Your task to perform on an android device: Open the map Image 0: 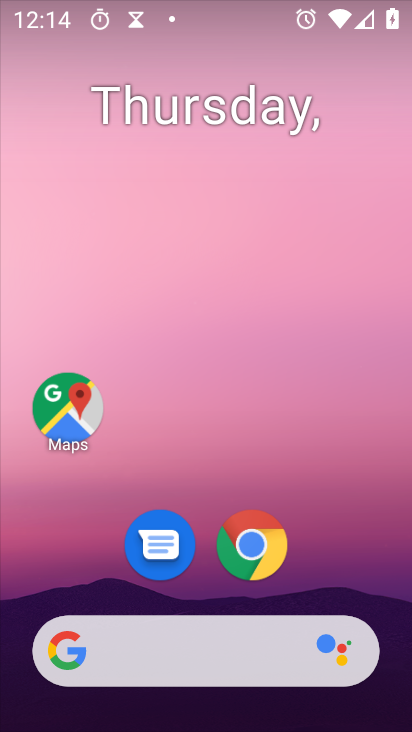
Step 0: press home button
Your task to perform on an android device: Open the map Image 1: 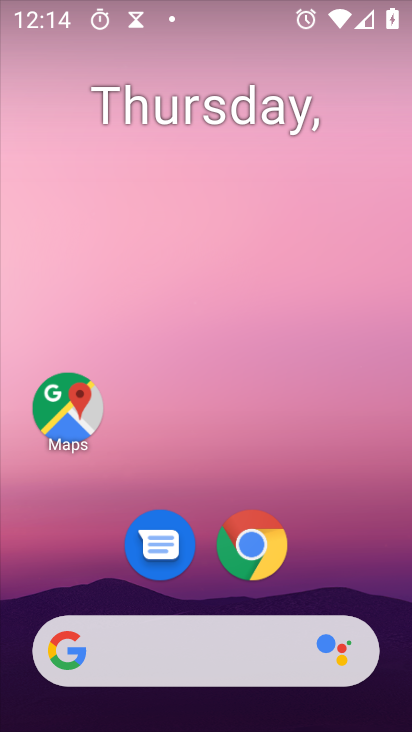
Step 1: click (59, 416)
Your task to perform on an android device: Open the map Image 2: 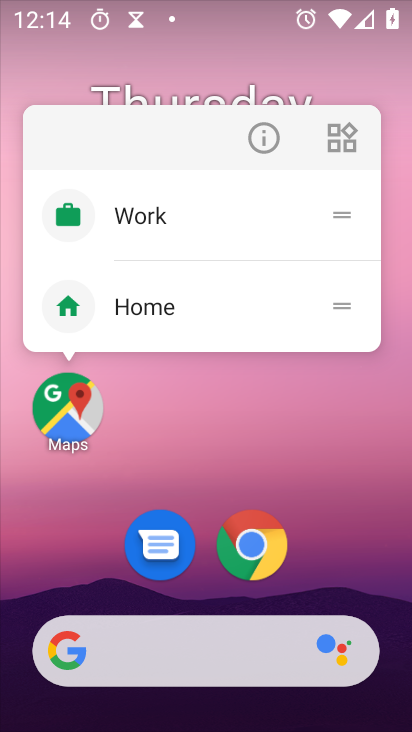
Step 2: click (74, 418)
Your task to perform on an android device: Open the map Image 3: 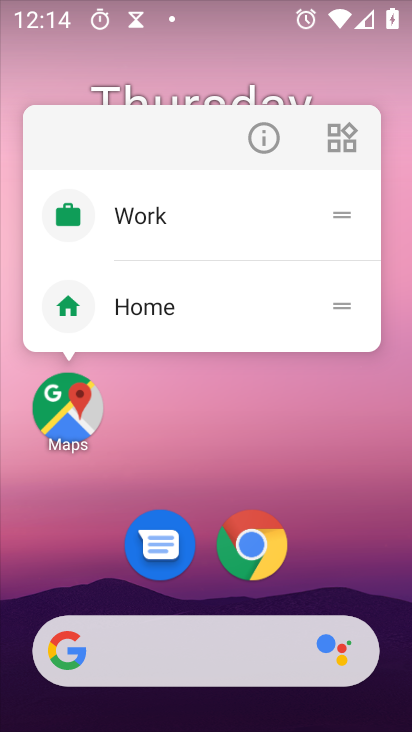
Step 3: click (71, 433)
Your task to perform on an android device: Open the map Image 4: 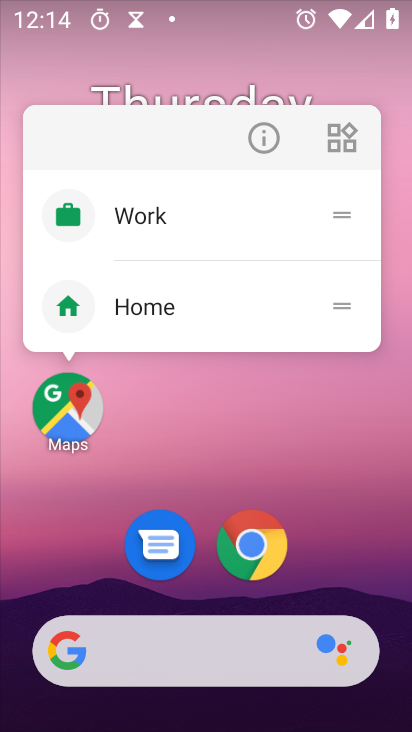
Step 4: click (54, 416)
Your task to perform on an android device: Open the map Image 5: 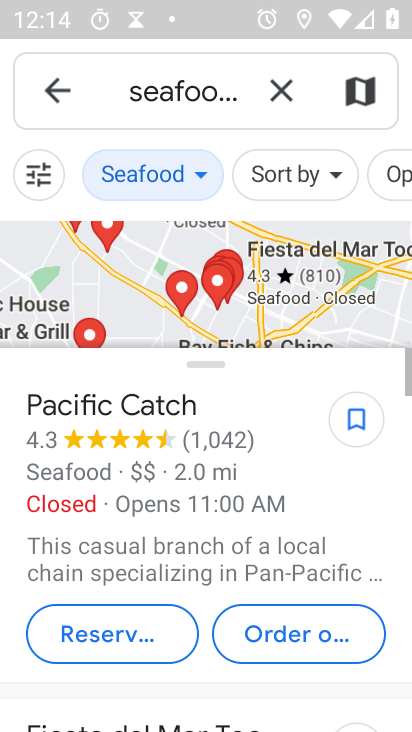
Step 5: click (58, 99)
Your task to perform on an android device: Open the map Image 6: 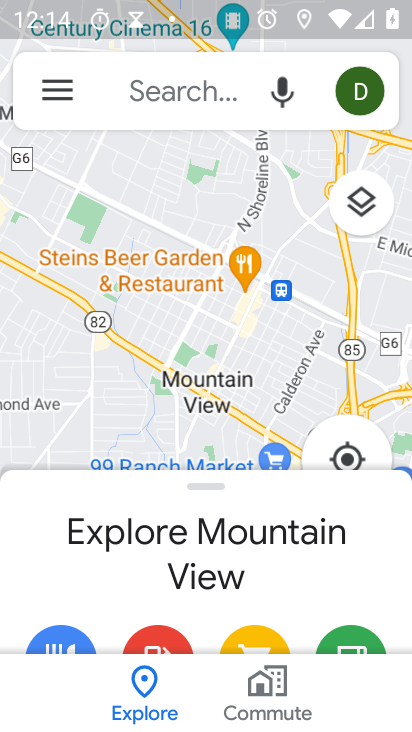
Step 6: task complete